Your task to perform on an android device: Is it going to rain today? Image 0: 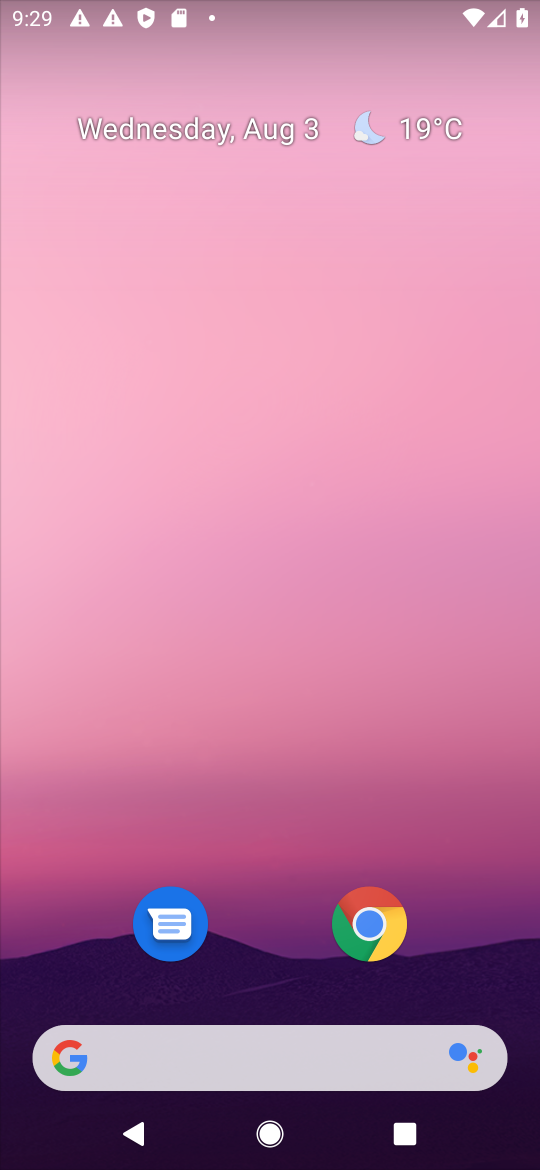
Step 0: press home button
Your task to perform on an android device: Is it going to rain today? Image 1: 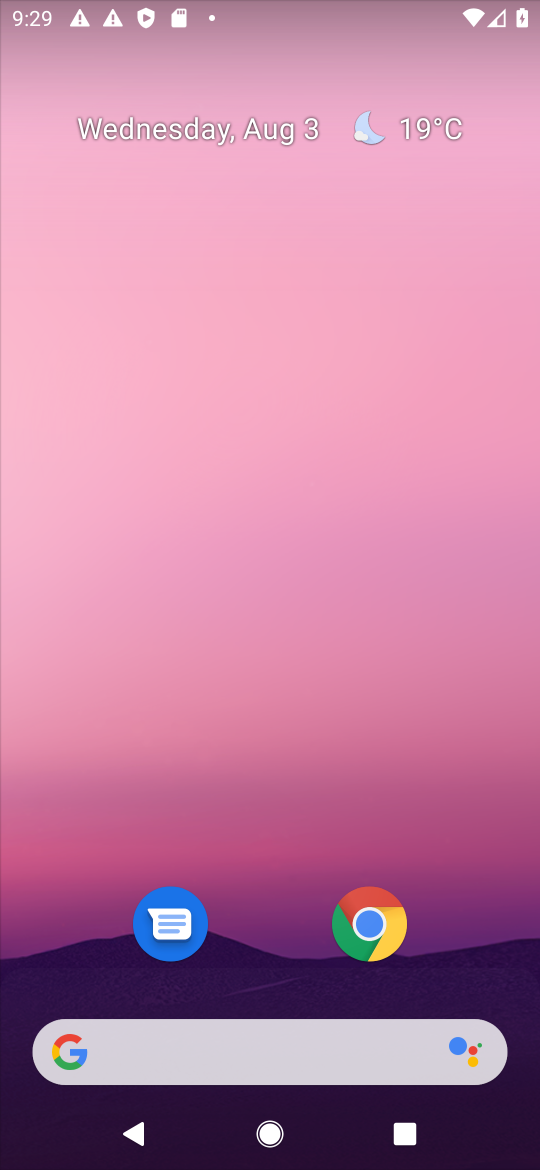
Step 1: click (364, 132)
Your task to perform on an android device: Is it going to rain today? Image 2: 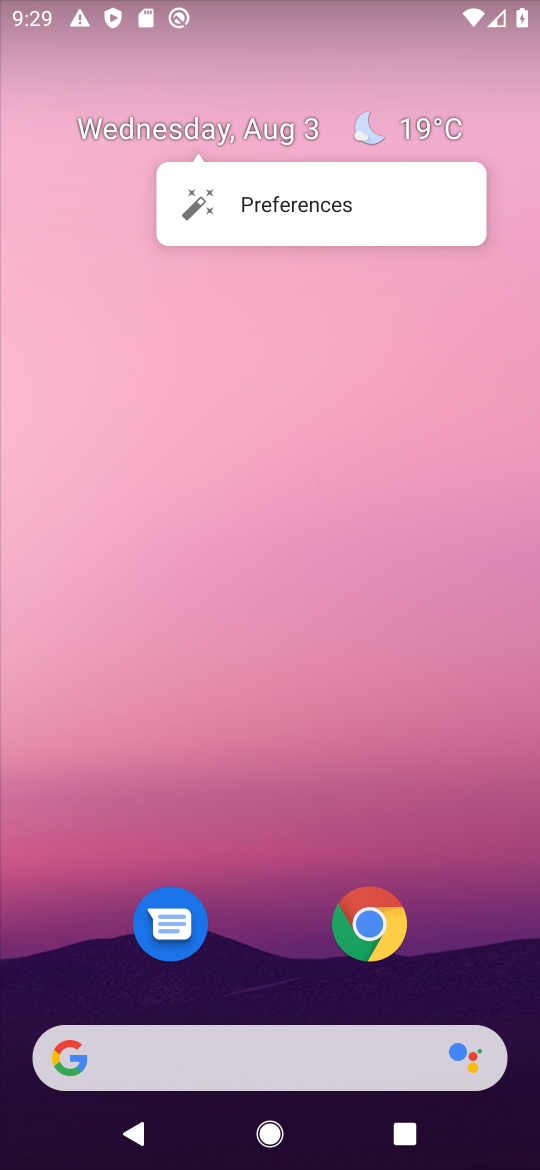
Step 2: click (405, 131)
Your task to perform on an android device: Is it going to rain today? Image 3: 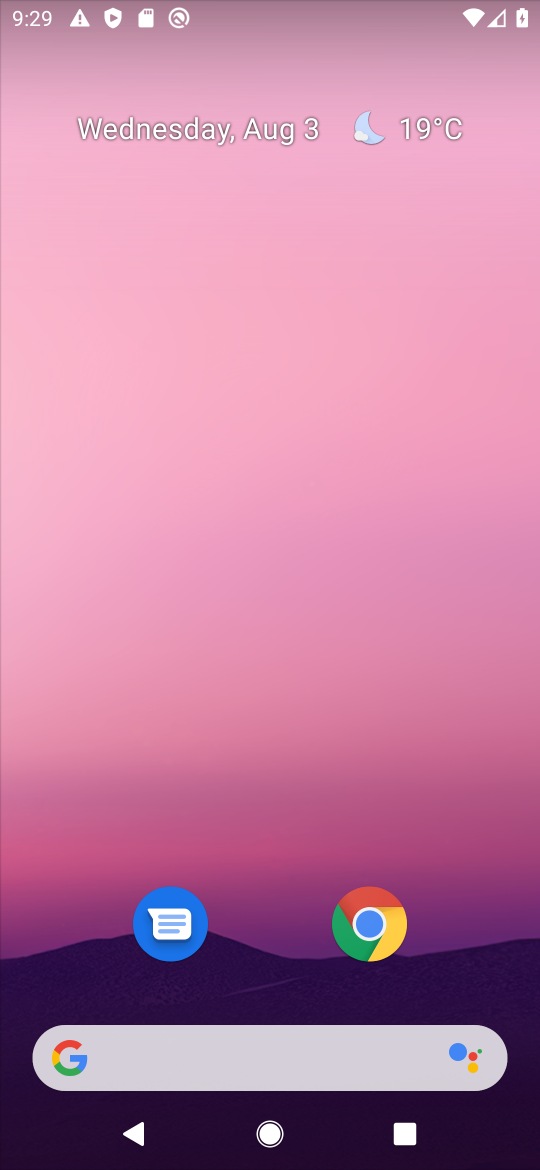
Step 3: click (414, 123)
Your task to perform on an android device: Is it going to rain today? Image 4: 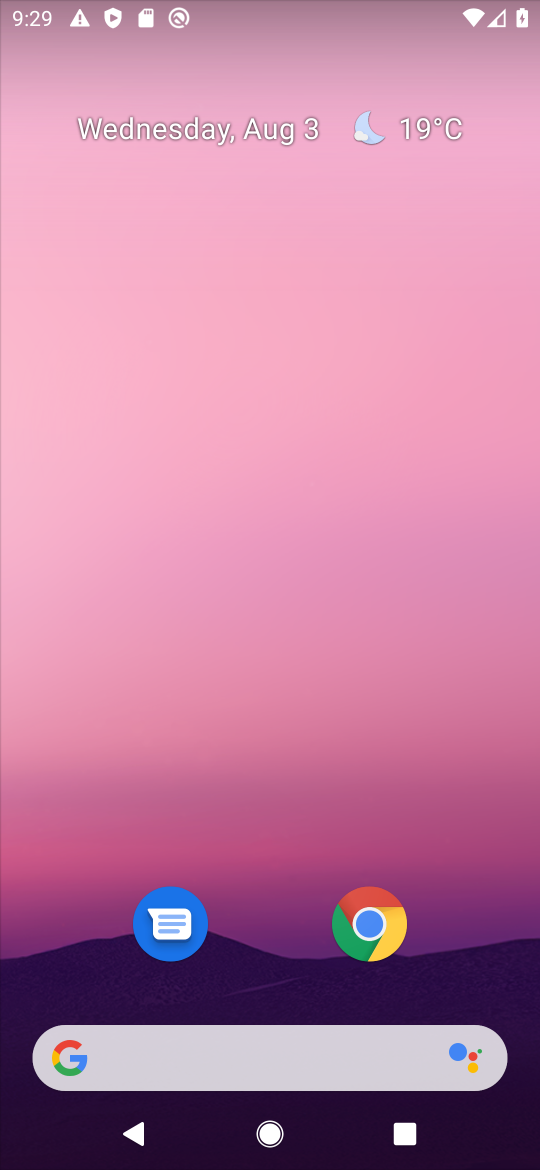
Step 4: click (366, 127)
Your task to perform on an android device: Is it going to rain today? Image 5: 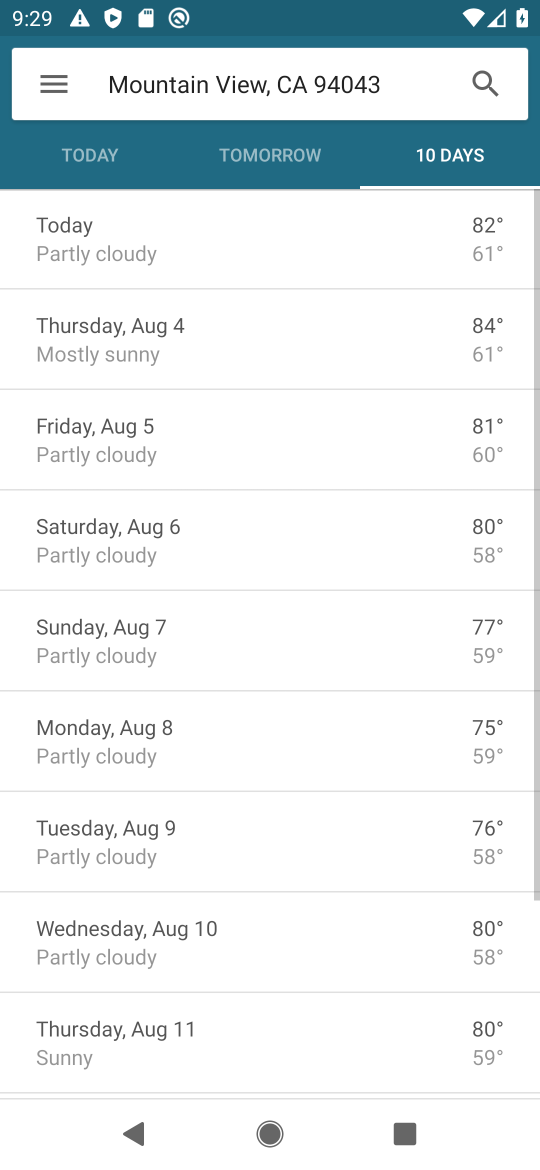
Step 5: click (102, 158)
Your task to perform on an android device: Is it going to rain today? Image 6: 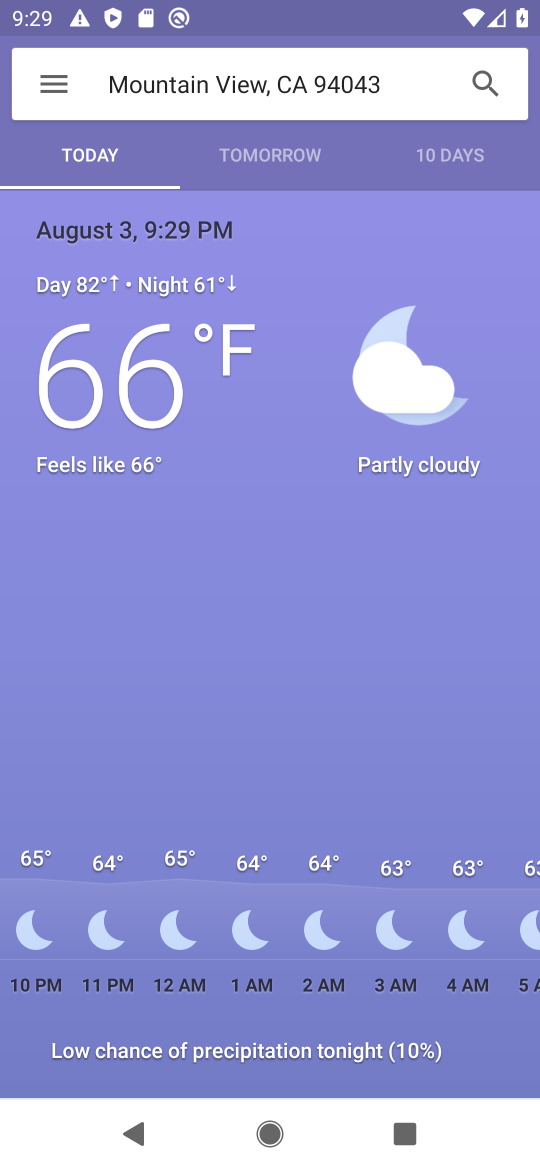
Step 6: drag from (472, 943) to (42, 960)
Your task to perform on an android device: Is it going to rain today? Image 7: 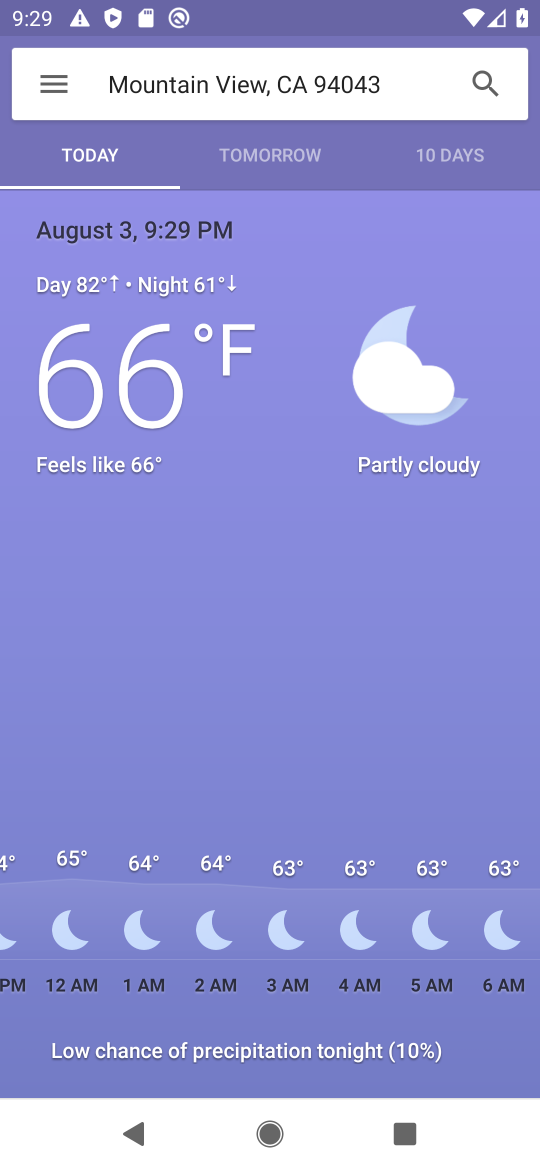
Step 7: drag from (488, 941) to (115, 931)
Your task to perform on an android device: Is it going to rain today? Image 8: 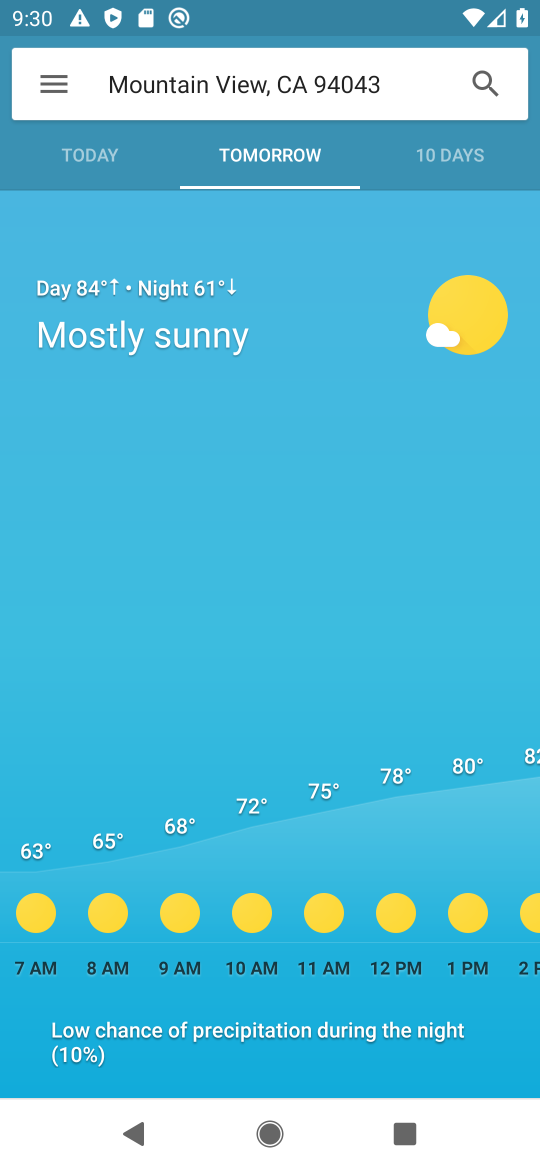
Step 8: click (94, 145)
Your task to perform on an android device: Is it going to rain today? Image 9: 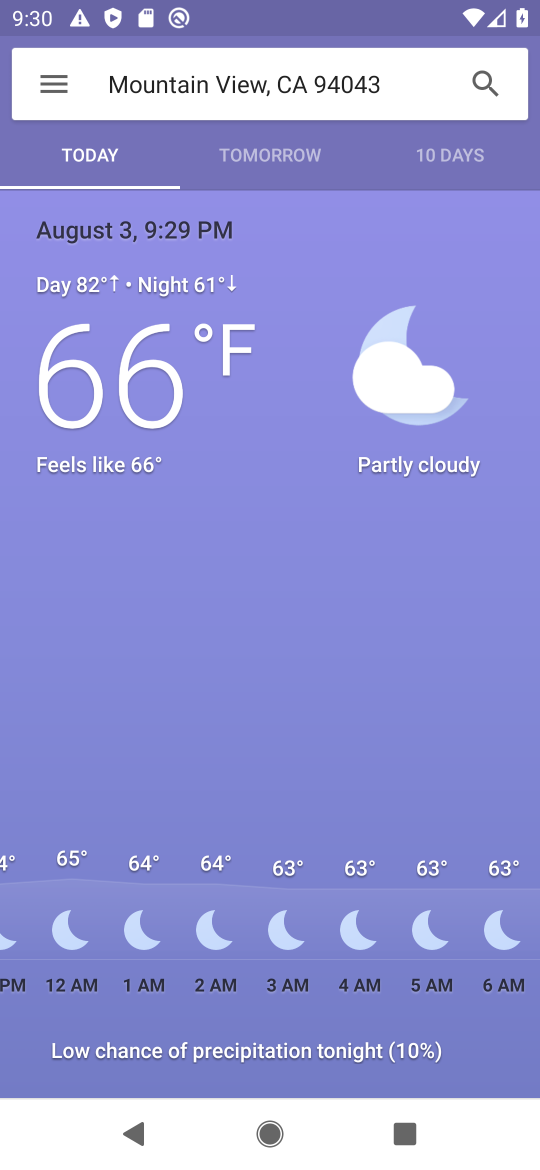
Step 9: task complete